Your task to perform on an android device: open the mobile data screen to see how much data has been used Image 0: 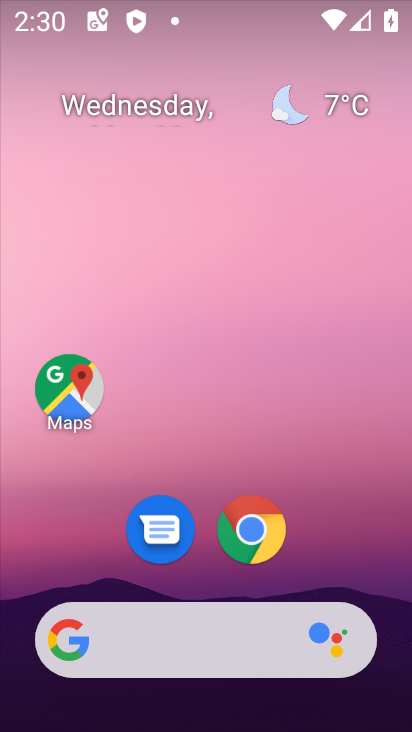
Step 0: drag from (19, 640) to (290, 191)
Your task to perform on an android device: open the mobile data screen to see how much data has been used Image 1: 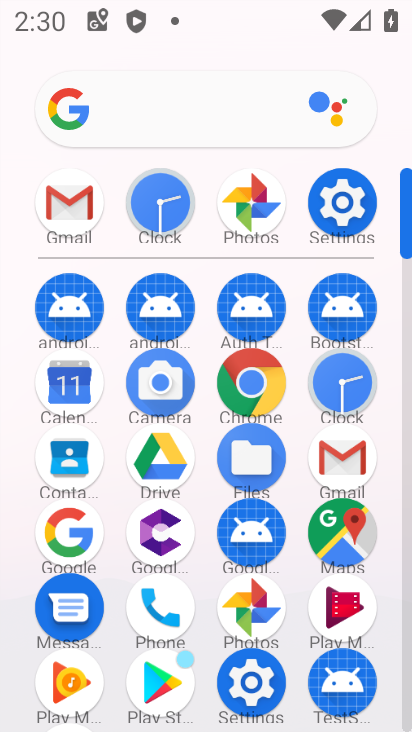
Step 1: click (325, 200)
Your task to perform on an android device: open the mobile data screen to see how much data has been used Image 2: 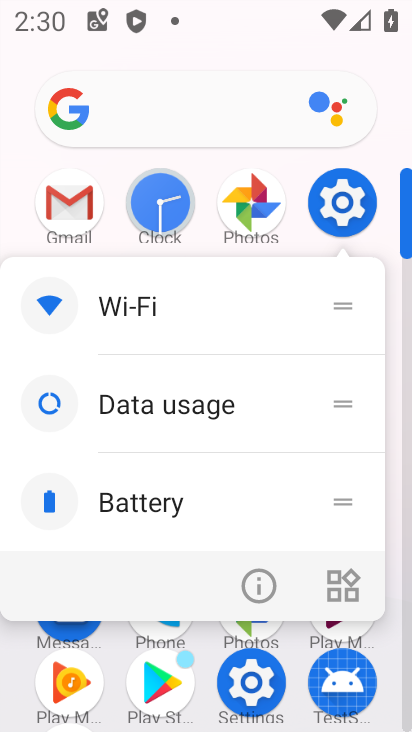
Step 2: click (362, 198)
Your task to perform on an android device: open the mobile data screen to see how much data has been used Image 3: 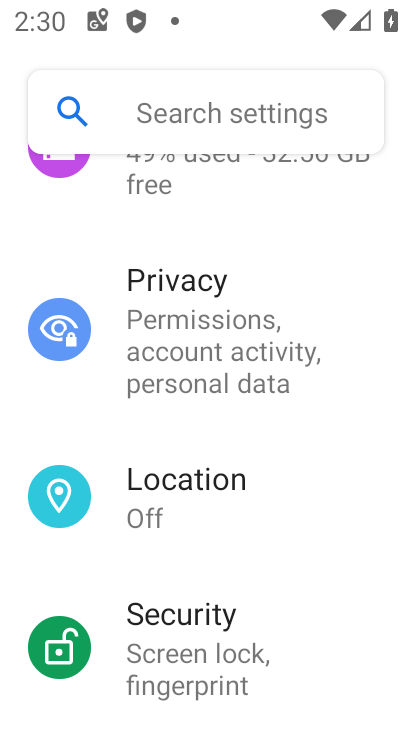
Step 3: drag from (199, 209) to (174, 617)
Your task to perform on an android device: open the mobile data screen to see how much data has been used Image 4: 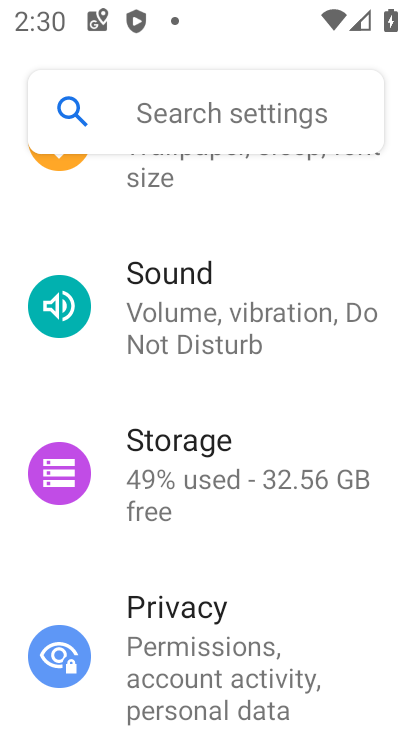
Step 4: drag from (214, 203) to (230, 635)
Your task to perform on an android device: open the mobile data screen to see how much data has been used Image 5: 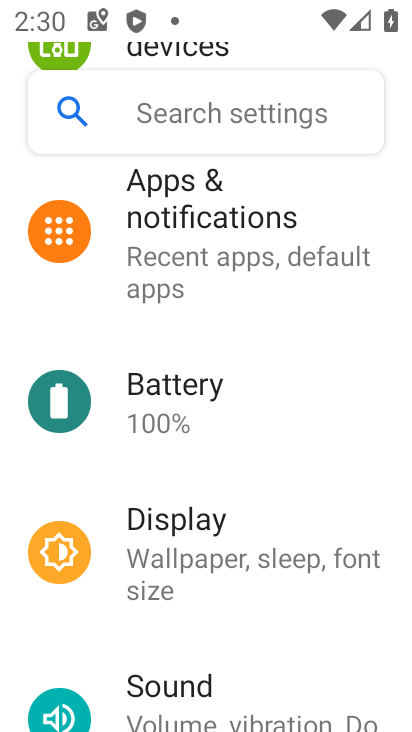
Step 5: drag from (199, 229) to (212, 563)
Your task to perform on an android device: open the mobile data screen to see how much data has been used Image 6: 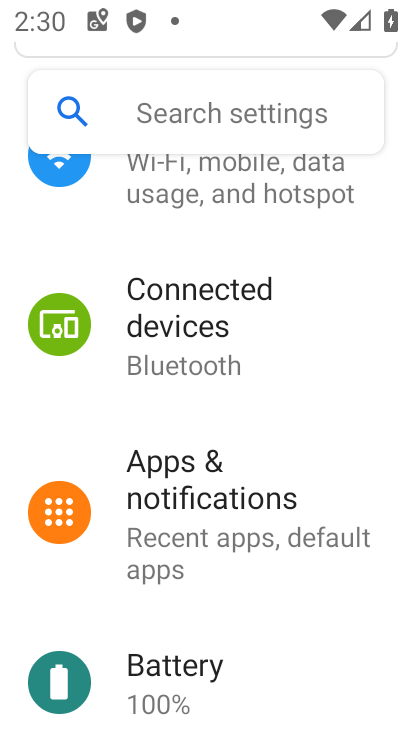
Step 6: drag from (202, 197) to (200, 530)
Your task to perform on an android device: open the mobile data screen to see how much data has been used Image 7: 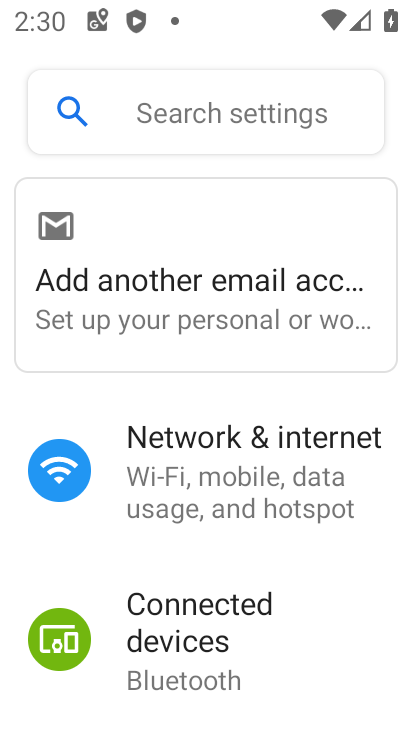
Step 7: click (225, 455)
Your task to perform on an android device: open the mobile data screen to see how much data has been used Image 8: 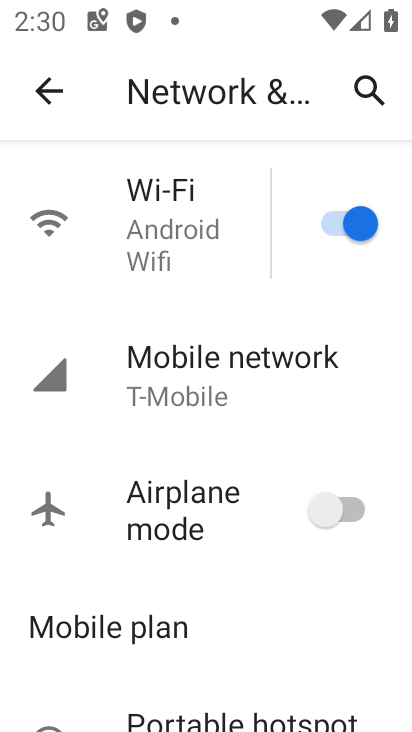
Step 8: click (218, 373)
Your task to perform on an android device: open the mobile data screen to see how much data has been used Image 9: 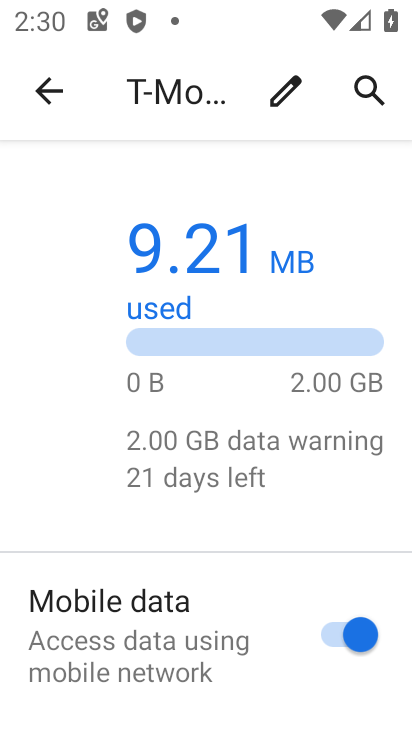
Step 9: task complete